Your task to perform on an android device: Open Google Chrome Image 0: 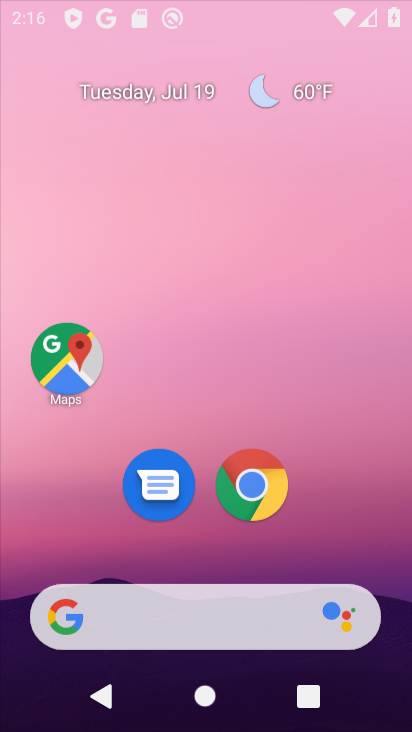
Step 0: click (268, 0)
Your task to perform on an android device: Open Google Chrome Image 1: 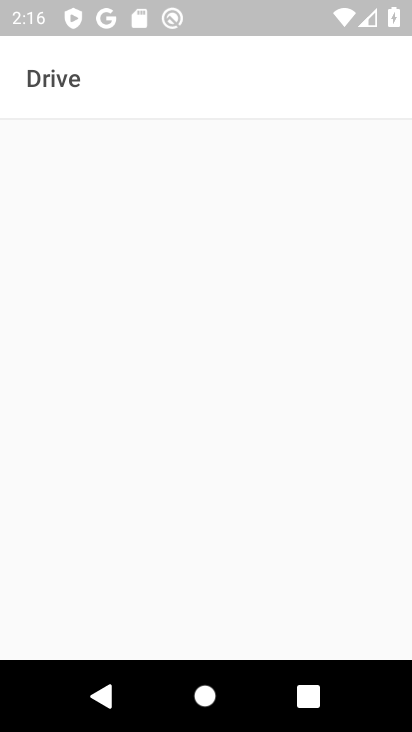
Step 1: press back button
Your task to perform on an android device: Open Google Chrome Image 2: 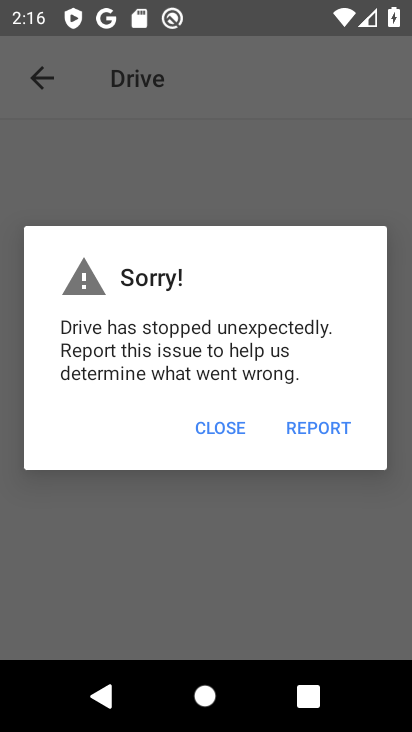
Step 2: press back button
Your task to perform on an android device: Open Google Chrome Image 3: 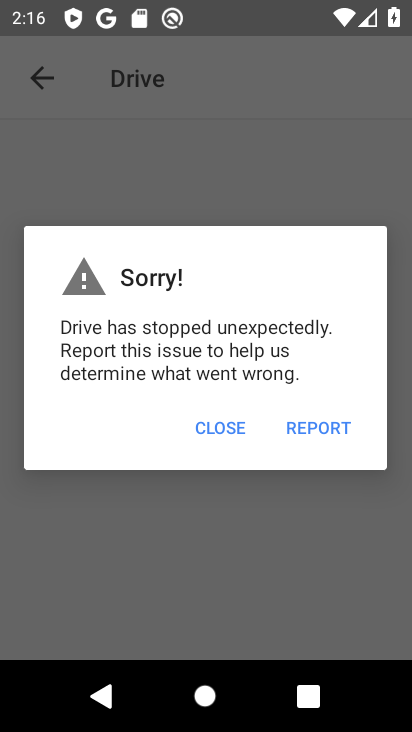
Step 3: press home button
Your task to perform on an android device: Open Google Chrome Image 4: 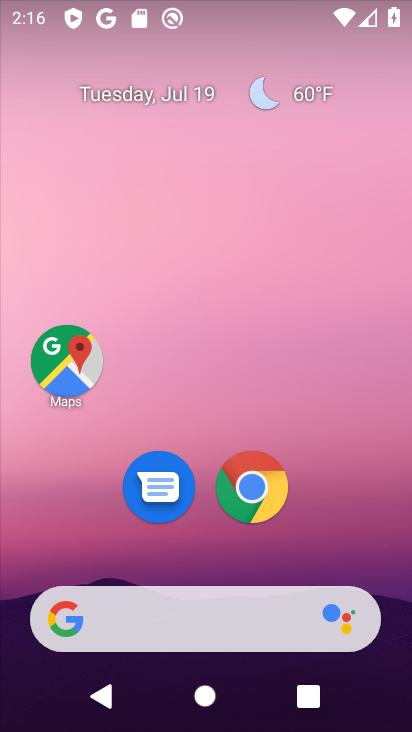
Step 4: drag from (155, 596) to (240, 13)
Your task to perform on an android device: Open Google Chrome Image 5: 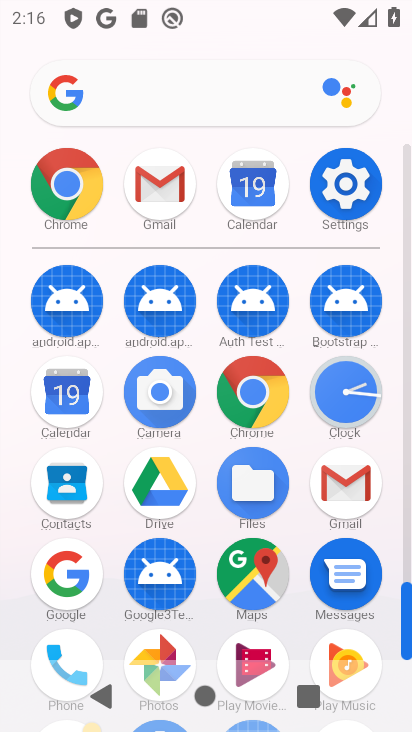
Step 5: click (65, 175)
Your task to perform on an android device: Open Google Chrome Image 6: 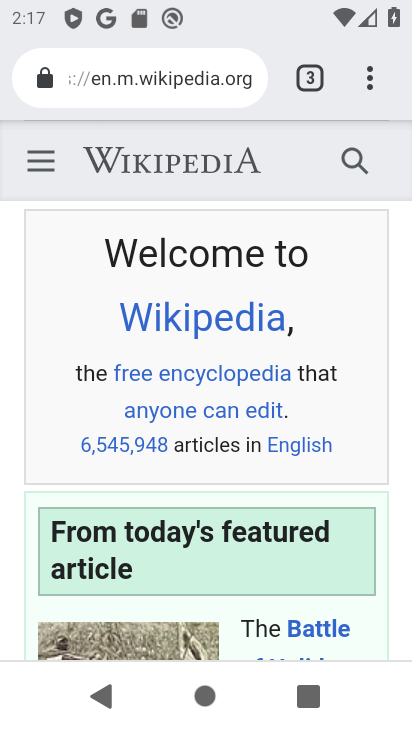
Step 6: task complete